Your task to perform on an android device: clear all cookies in the chrome app Image 0: 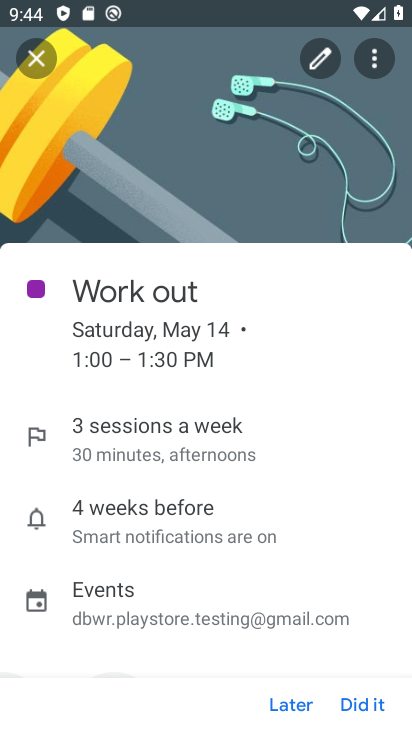
Step 0: click (287, 702)
Your task to perform on an android device: clear all cookies in the chrome app Image 1: 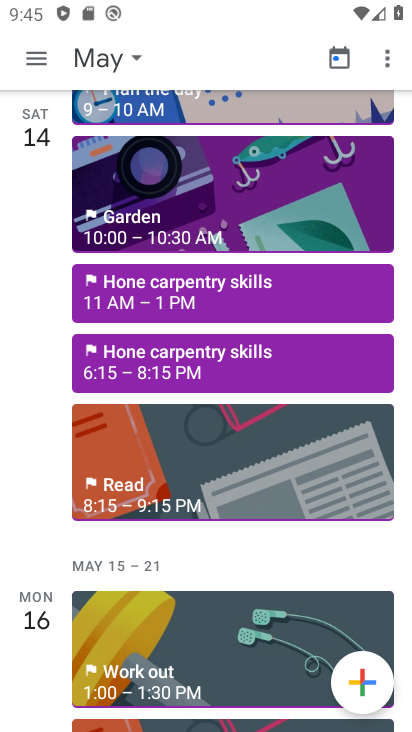
Step 1: press back button
Your task to perform on an android device: clear all cookies in the chrome app Image 2: 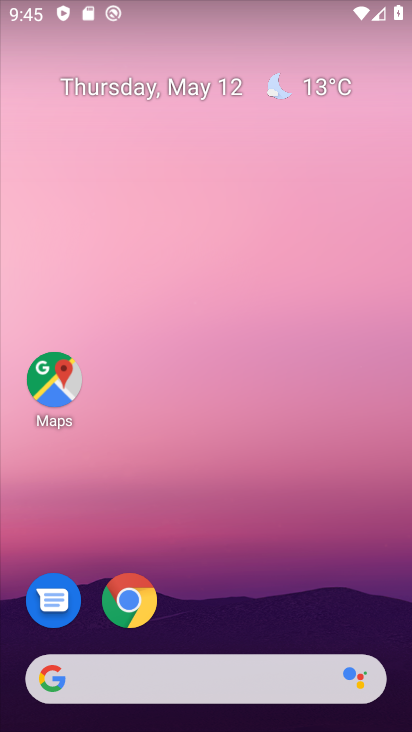
Step 2: click (136, 599)
Your task to perform on an android device: clear all cookies in the chrome app Image 3: 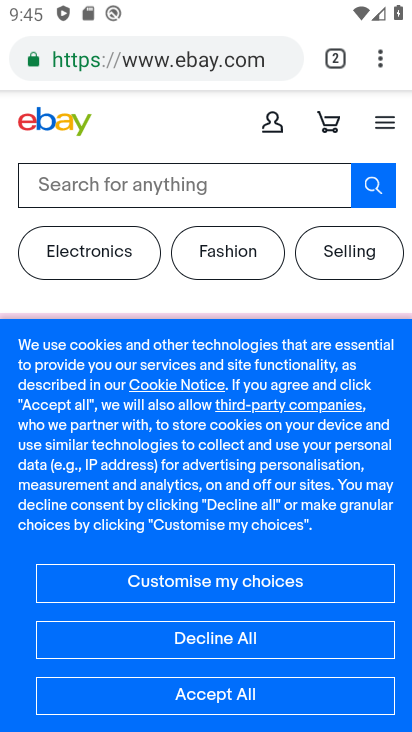
Step 3: drag from (379, 55) to (213, 334)
Your task to perform on an android device: clear all cookies in the chrome app Image 4: 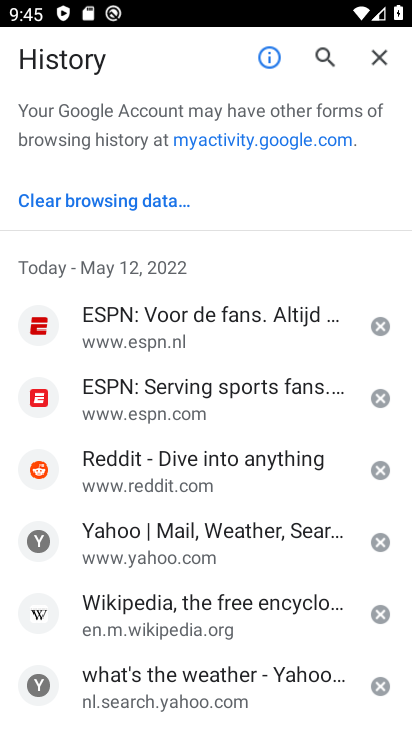
Step 4: click (106, 197)
Your task to perform on an android device: clear all cookies in the chrome app Image 5: 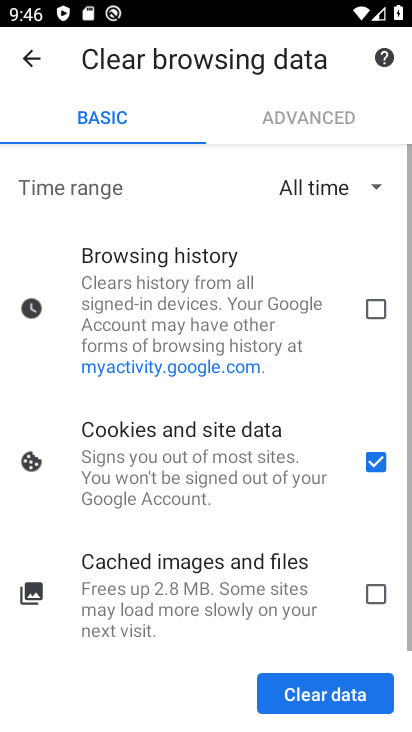
Step 5: click (290, 686)
Your task to perform on an android device: clear all cookies in the chrome app Image 6: 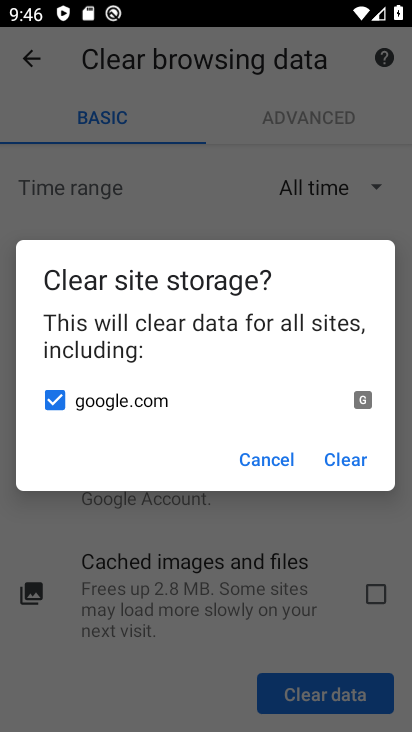
Step 6: click (353, 465)
Your task to perform on an android device: clear all cookies in the chrome app Image 7: 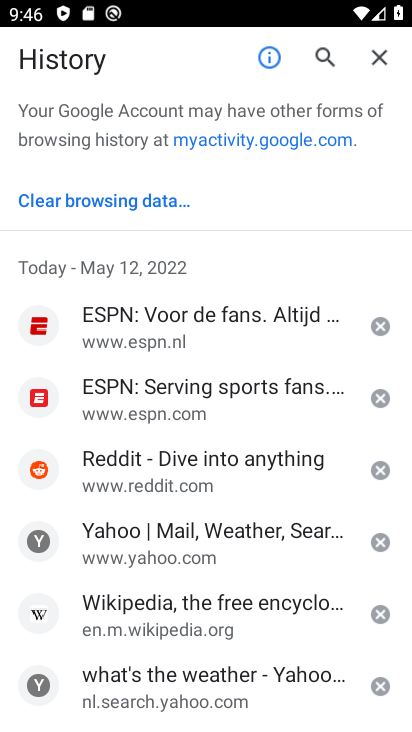
Step 7: task complete